Your task to perform on an android device: Go to eBay Image 0: 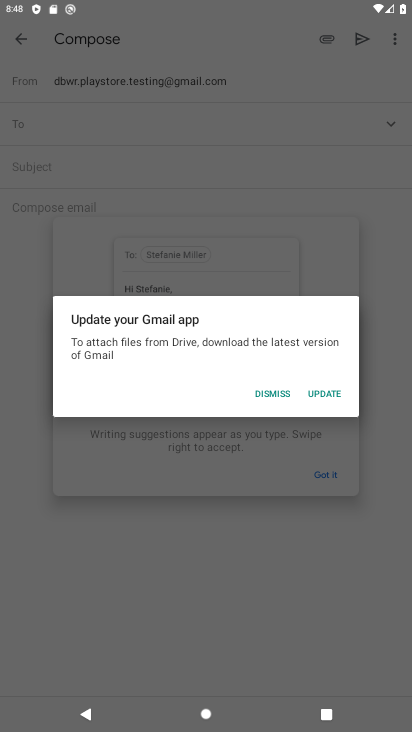
Step 0: press back button
Your task to perform on an android device: Go to eBay Image 1: 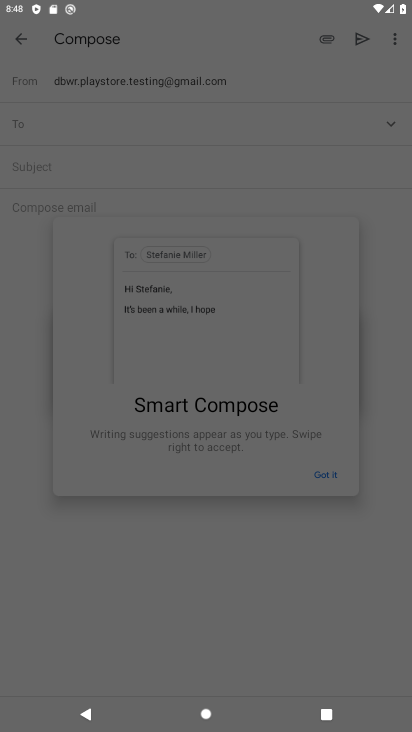
Step 1: press back button
Your task to perform on an android device: Go to eBay Image 2: 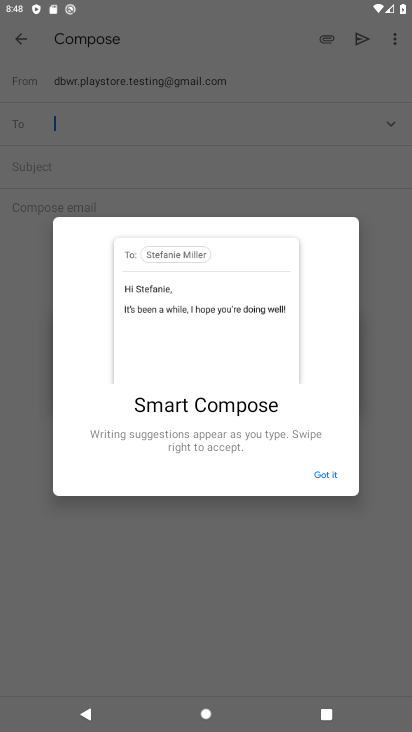
Step 2: press back button
Your task to perform on an android device: Go to eBay Image 3: 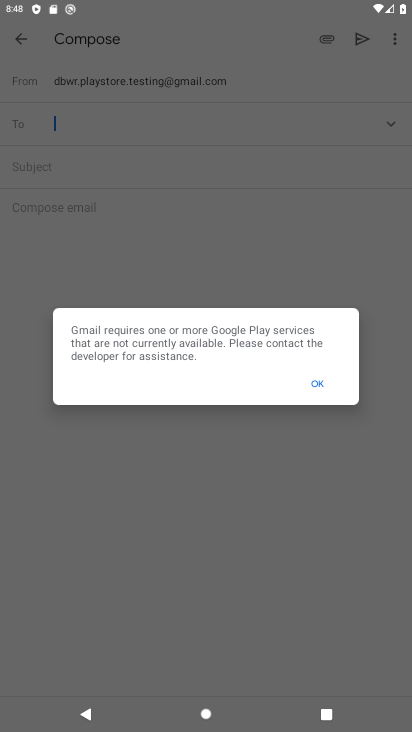
Step 3: press back button
Your task to perform on an android device: Go to eBay Image 4: 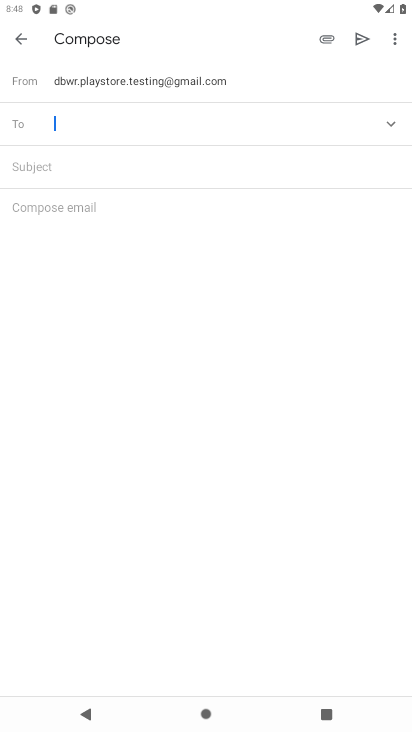
Step 4: press back button
Your task to perform on an android device: Go to eBay Image 5: 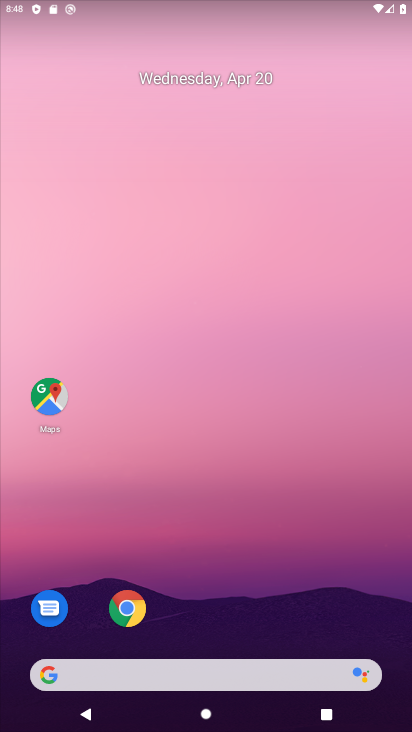
Step 5: click (120, 599)
Your task to perform on an android device: Go to eBay Image 6: 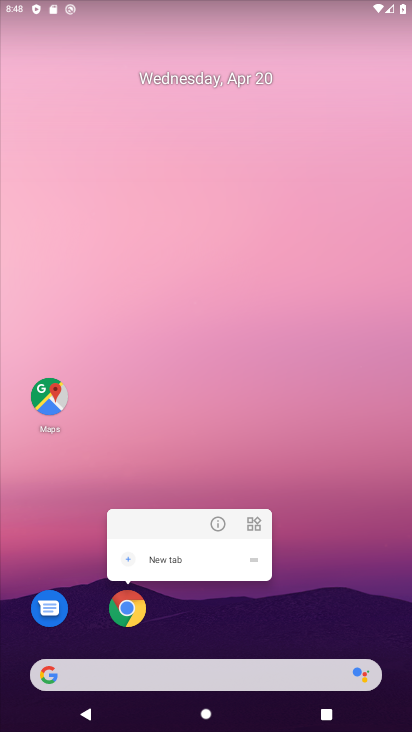
Step 6: click (134, 627)
Your task to perform on an android device: Go to eBay Image 7: 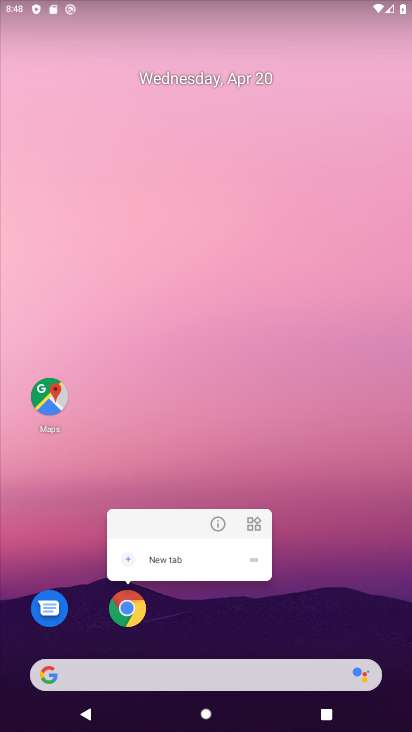
Step 7: click (126, 627)
Your task to perform on an android device: Go to eBay Image 8: 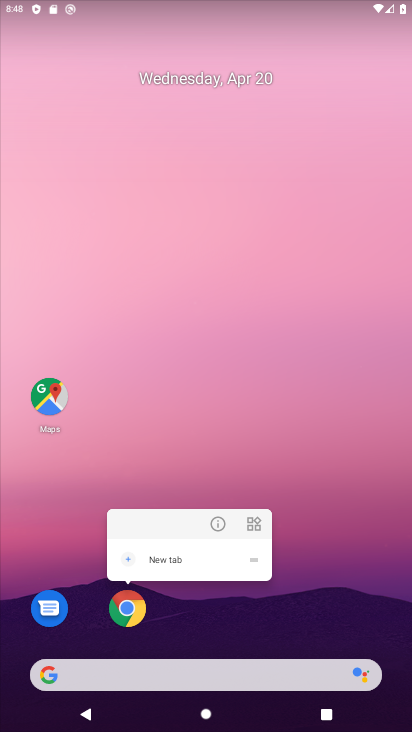
Step 8: click (129, 608)
Your task to perform on an android device: Go to eBay Image 9: 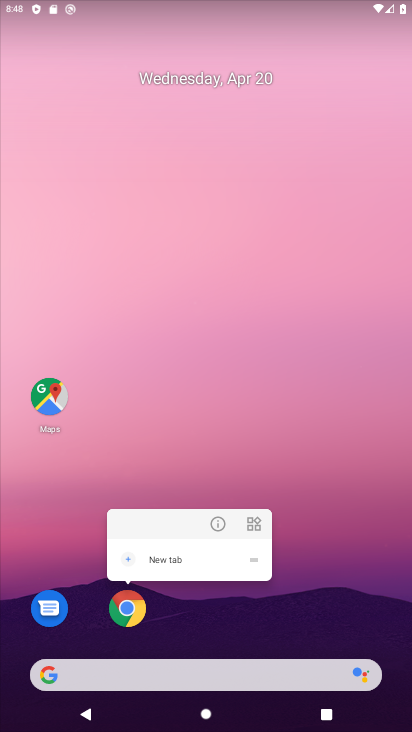
Step 9: click (133, 609)
Your task to perform on an android device: Go to eBay Image 10: 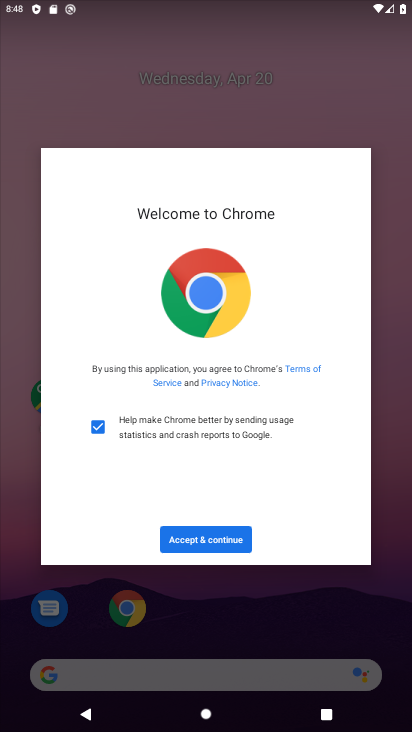
Step 10: click (226, 541)
Your task to perform on an android device: Go to eBay Image 11: 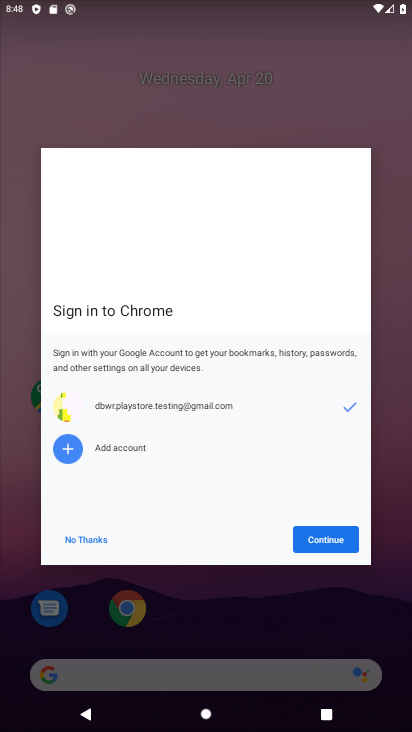
Step 11: click (355, 532)
Your task to perform on an android device: Go to eBay Image 12: 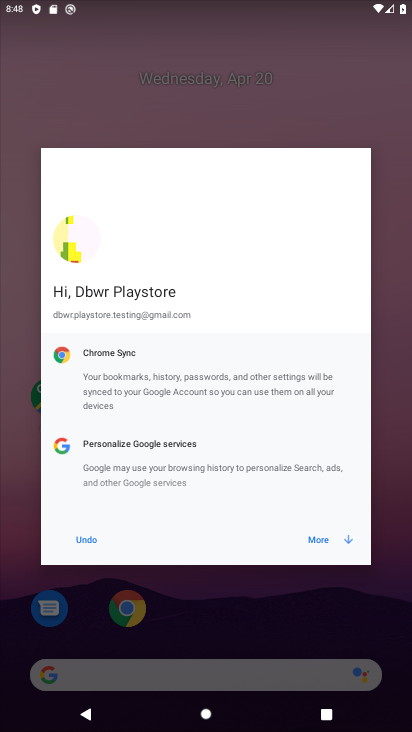
Step 12: click (334, 547)
Your task to perform on an android device: Go to eBay Image 13: 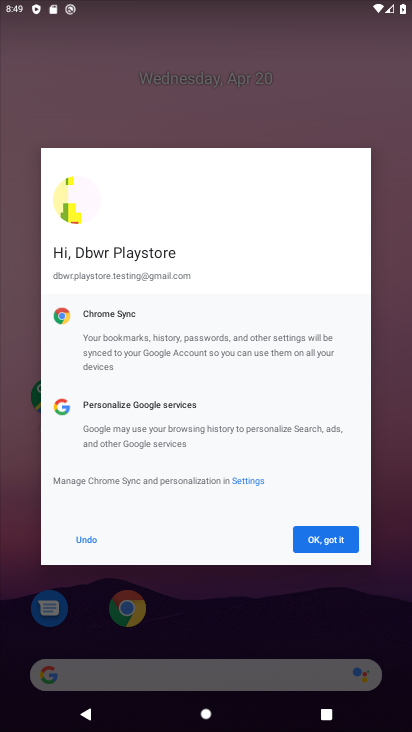
Step 13: click (332, 546)
Your task to perform on an android device: Go to eBay Image 14: 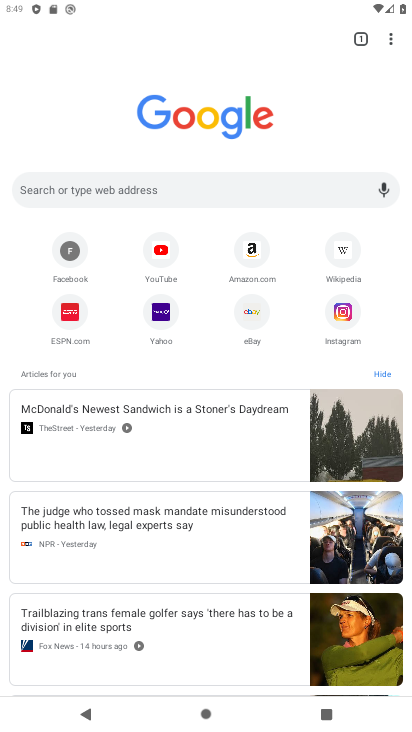
Step 14: click (248, 317)
Your task to perform on an android device: Go to eBay Image 15: 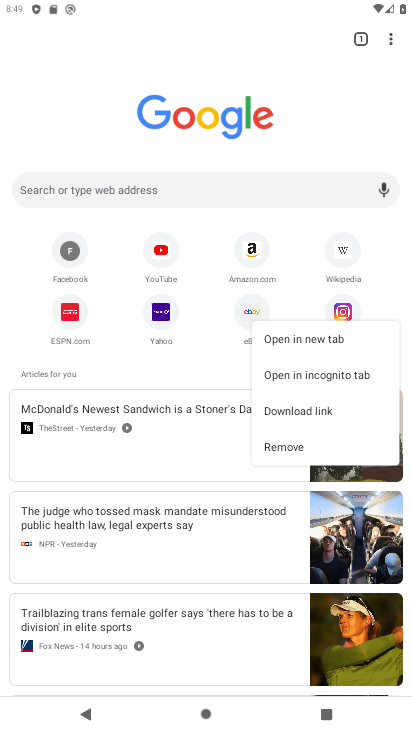
Step 15: click (248, 311)
Your task to perform on an android device: Go to eBay Image 16: 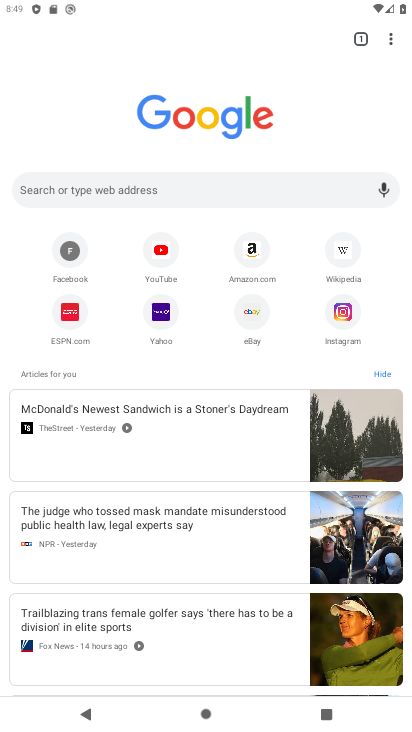
Step 16: click (248, 324)
Your task to perform on an android device: Go to eBay Image 17: 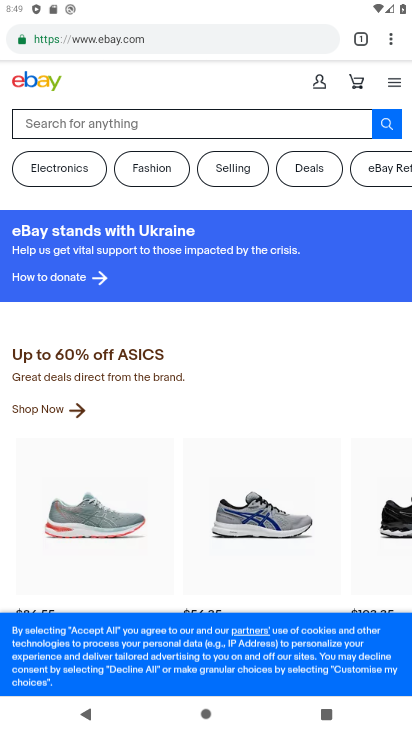
Step 17: task complete